Your task to perform on an android device: Do I have any events today? Image 0: 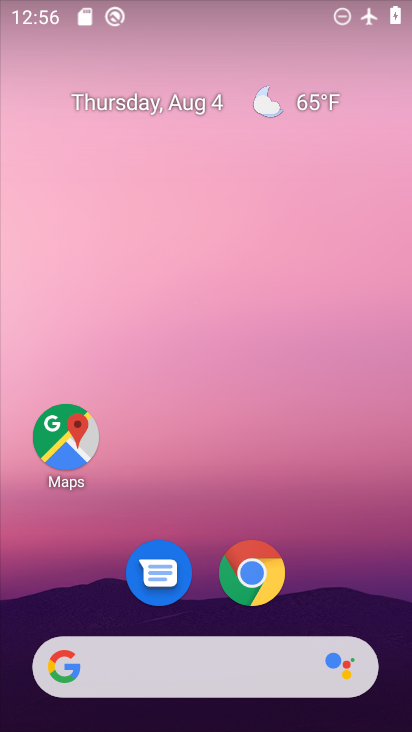
Step 0: drag from (367, 571) to (352, 151)
Your task to perform on an android device: Do I have any events today? Image 1: 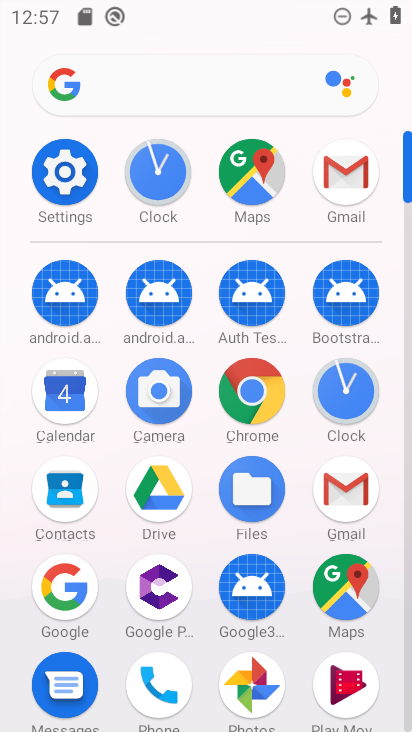
Step 1: click (62, 388)
Your task to perform on an android device: Do I have any events today? Image 2: 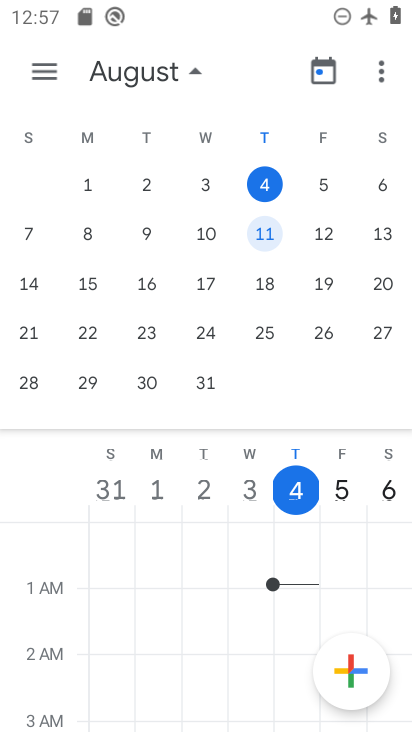
Step 2: click (263, 175)
Your task to perform on an android device: Do I have any events today? Image 3: 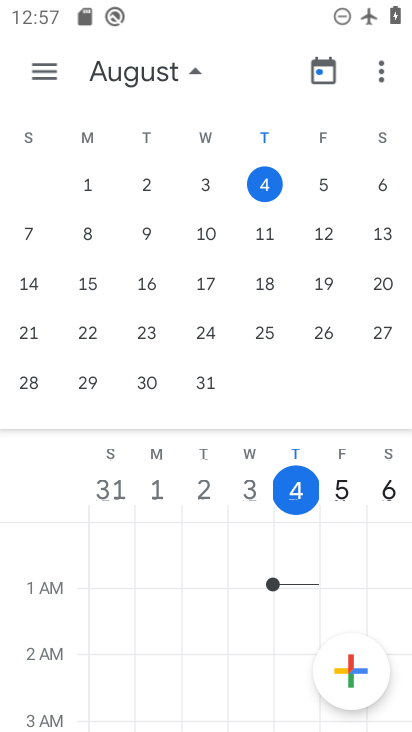
Step 3: drag from (312, 546) to (369, 214)
Your task to perform on an android device: Do I have any events today? Image 4: 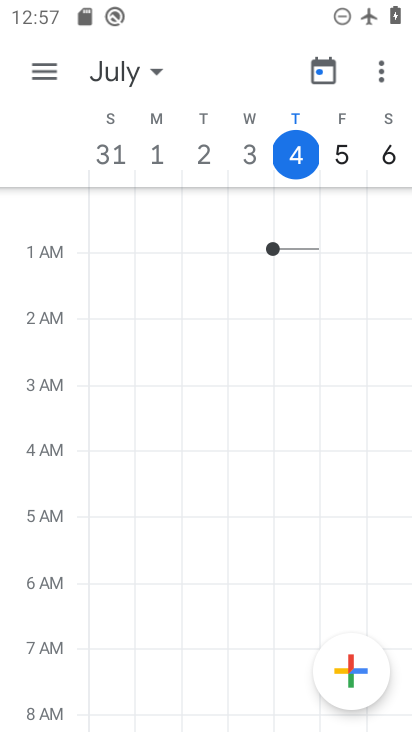
Step 4: click (297, 150)
Your task to perform on an android device: Do I have any events today? Image 5: 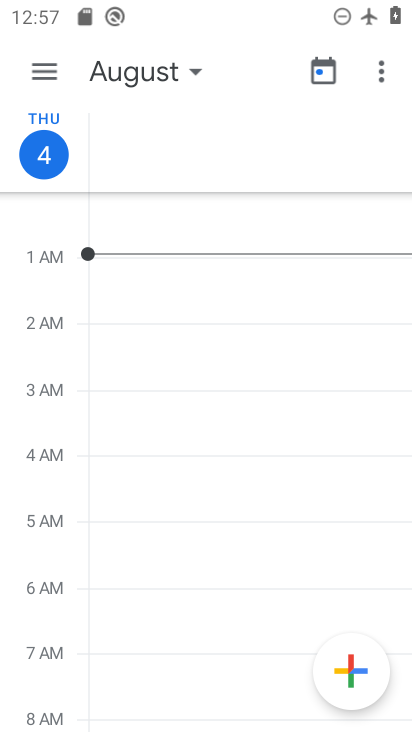
Step 5: task complete